Your task to perform on an android device: Go to internet settings Image 0: 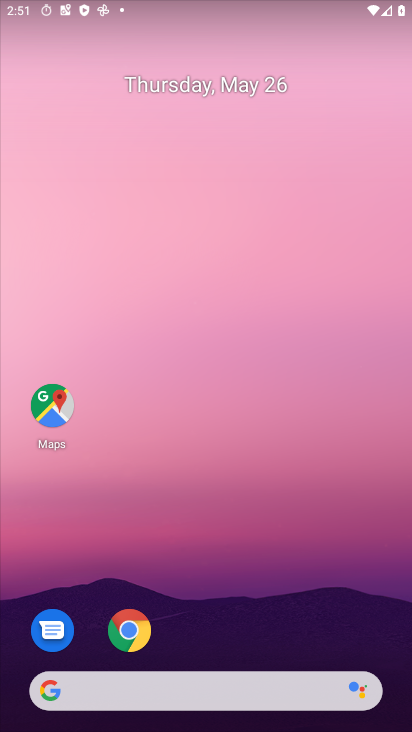
Step 0: drag from (230, 532) to (225, 173)
Your task to perform on an android device: Go to internet settings Image 1: 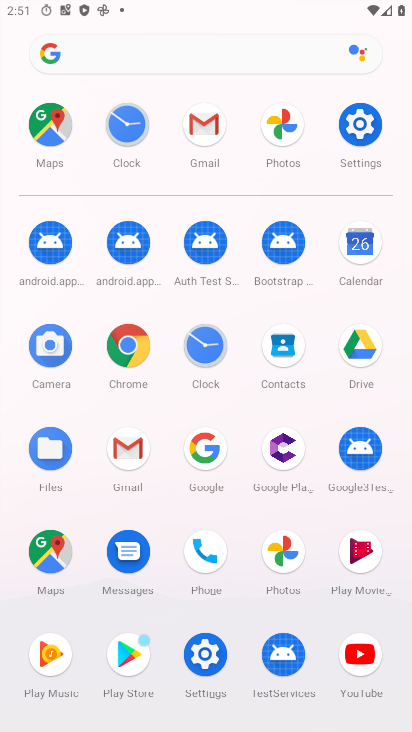
Step 1: click (362, 124)
Your task to perform on an android device: Go to internet settings Image 2: 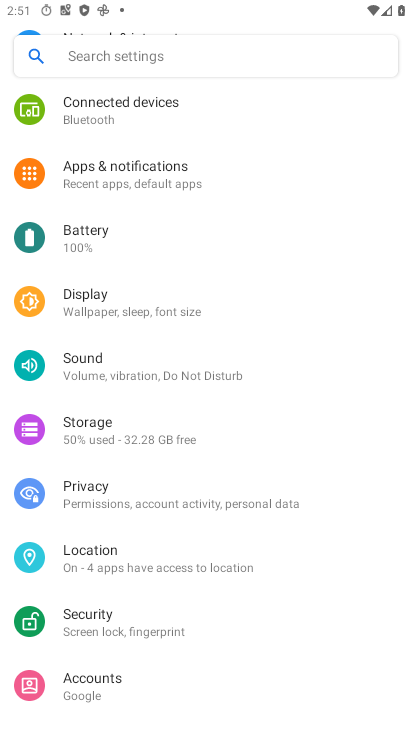
Step 2: drag from (333, 163) to (408, 574)
Your task to perform on an android device: Go to internet settings Image 3: 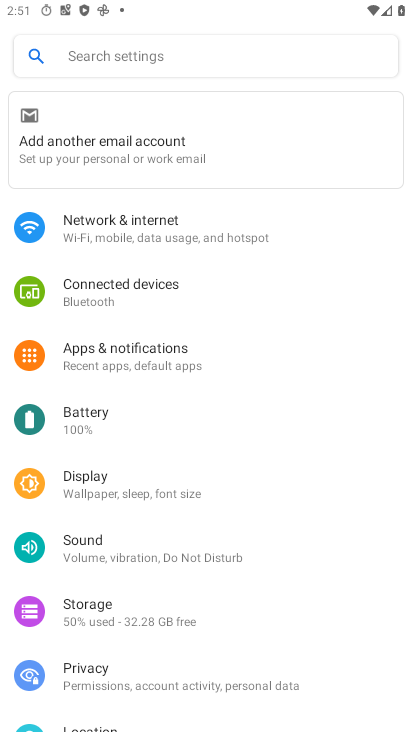
Step 3: click (137, 221)
Your task to perform on an android device: Go to internet settings Image 4: 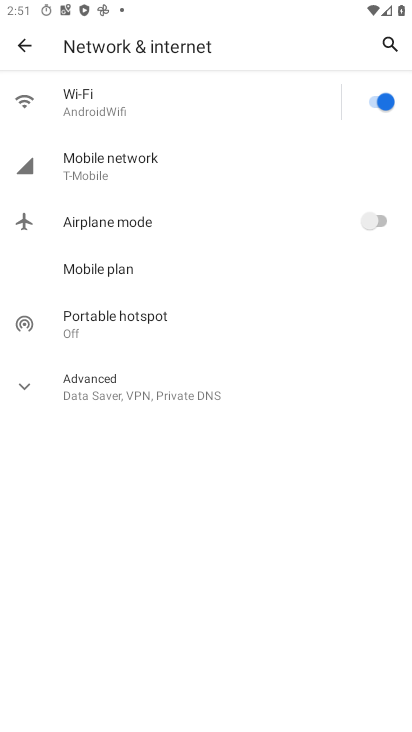
Step 4: click (146, 165)
Your task to perform on an android device: Go to internet settings Image 5: 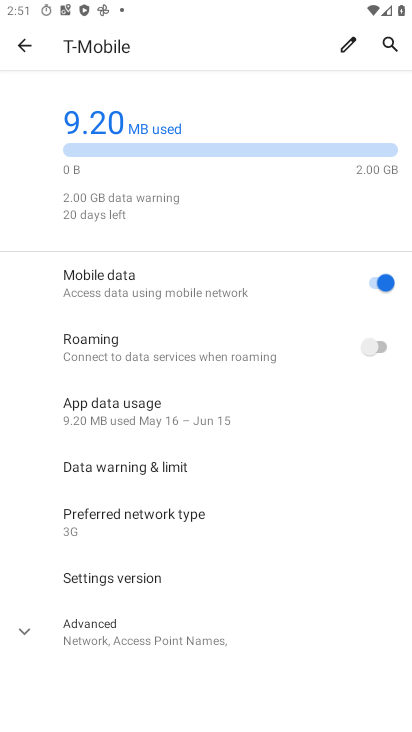
Step 5: task complete